Your task to perform on an android device: Open the stopwatch Image 0: 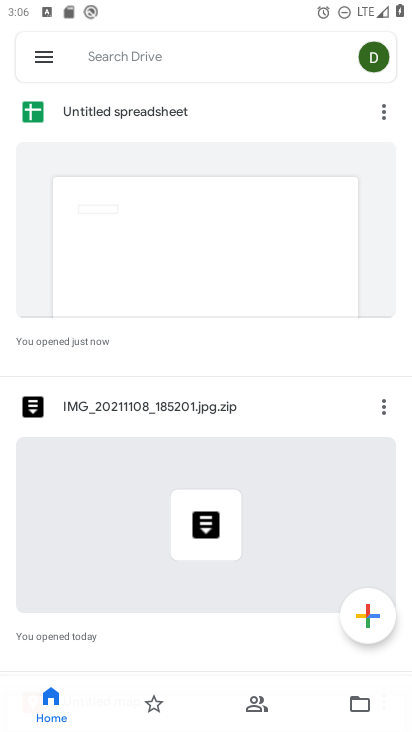
Step 0: press home button
Your task to perform on an android device: Open the stopwatch Image 1: 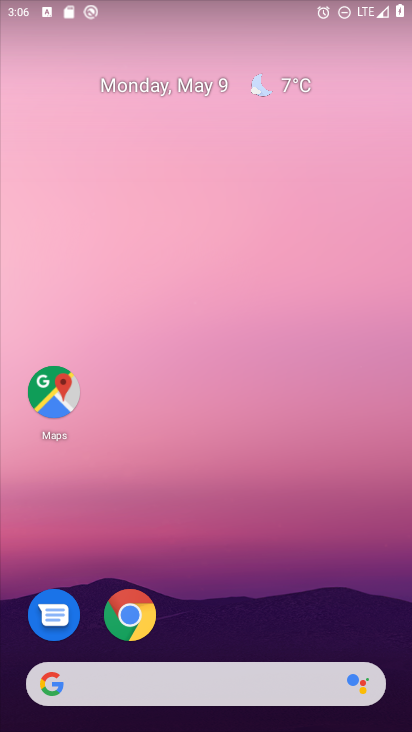
Step 1: drag from (358, 619) to (377, 83)
Your task to perform on an android device: Open the stopwatch Image 2: 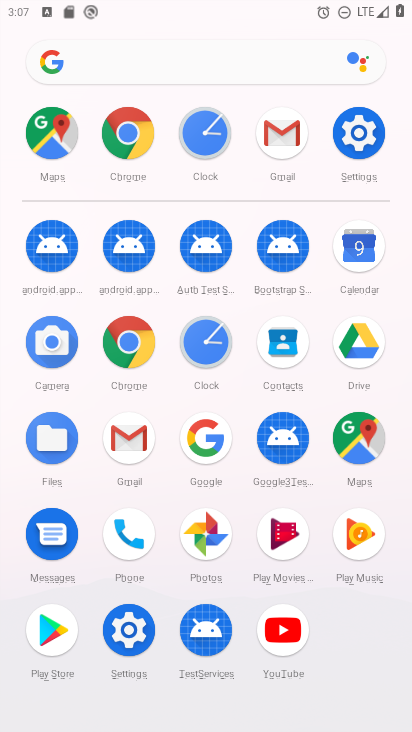
Step 2: click (44, 344)
Your task to perform on an android device: Open the stopwatch Image 3: 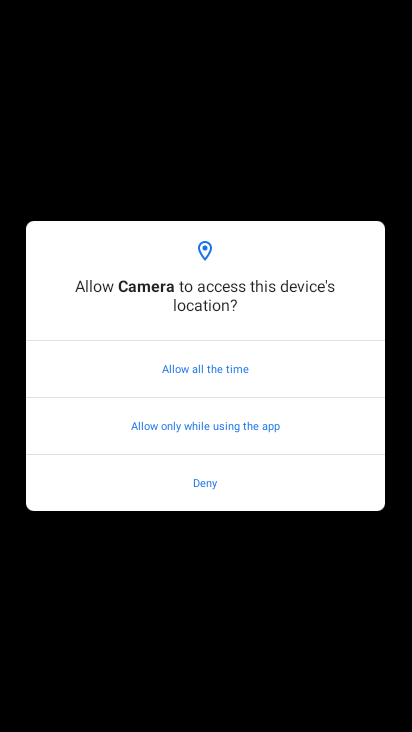
Step 3: press home button
Your task to perform on an android device: Open the stopwatch Image 4: 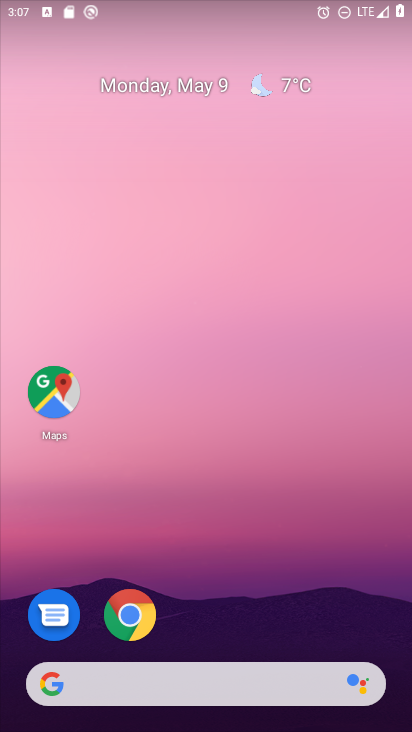
Step 4: drag from (364, 607) to (335, 39)
Your task to perform on an android device: Open the stopwatch Image 5: 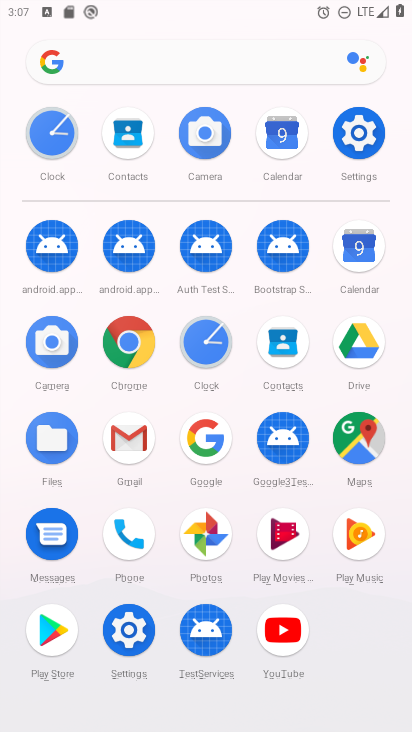
Step 5: click (202, 341)
Your task to perform on an android device: Open the stopwatch Image 6: 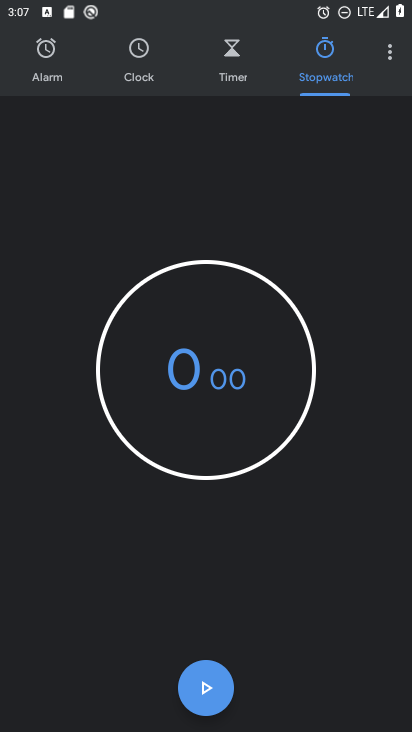
Step 6: task complete